Your task to perform on an android device: Open Android settings Image 0: 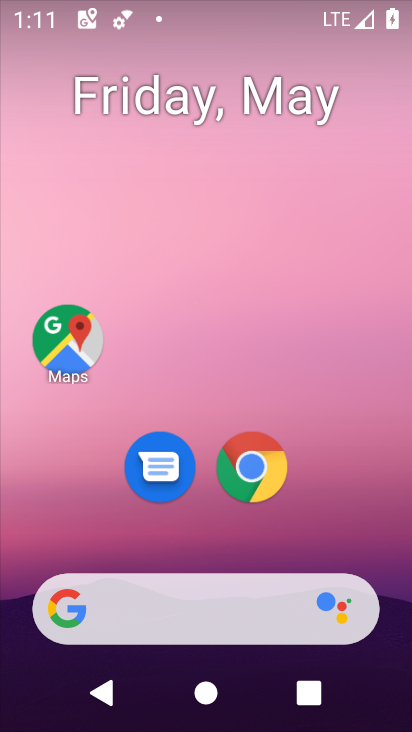
Step 0: drag from (361, 526) to (405, 26)
Your task to perform on an android device: Open Android settings Image 1: 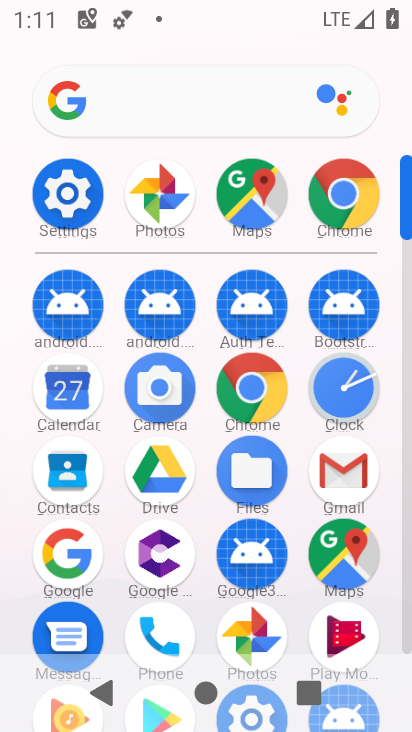
Step 1: click (60, 199)
Your task to perform on an android device: Open Android settings Image 2: 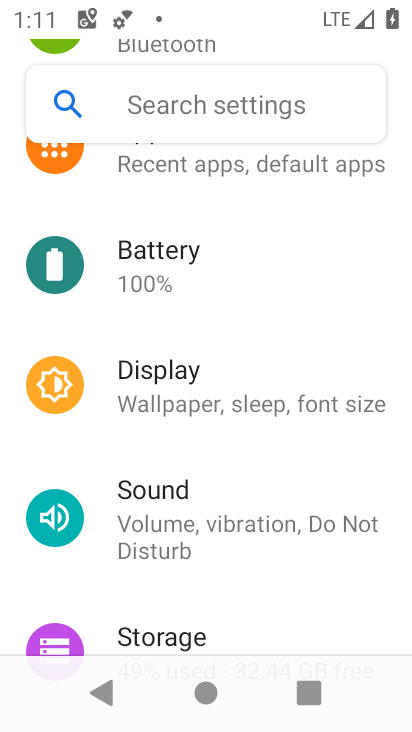
Step 2: task complete